Your task to perform on an android device: turn off location Image 0: 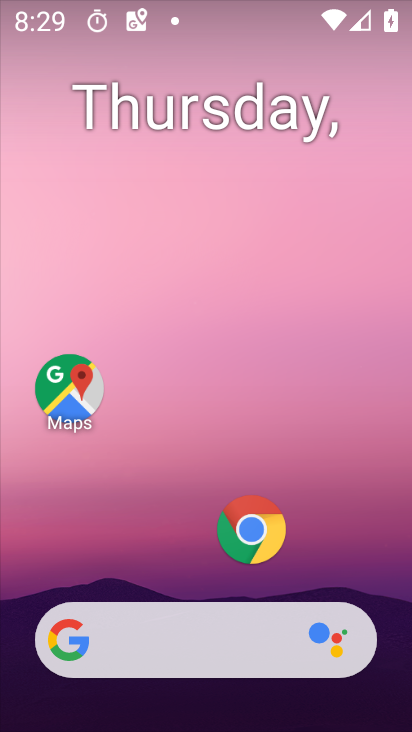
Step 0: press home button
Your task to perform on an android device: turn off location Image 1: 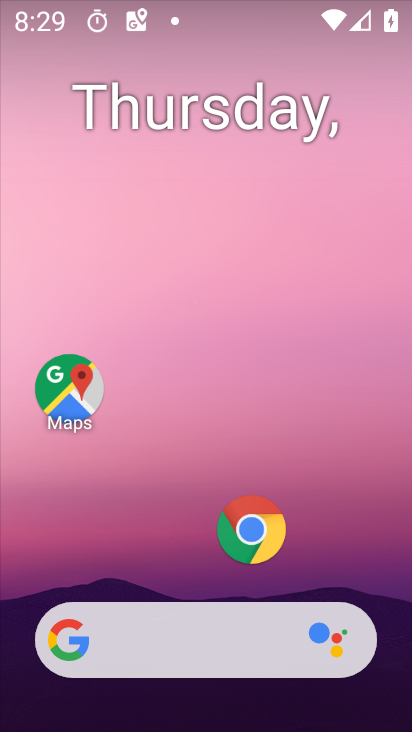
Step 1: drag from (207, 583) to (213, 34)
Your task to perform on an android device: turn off location Image 2: 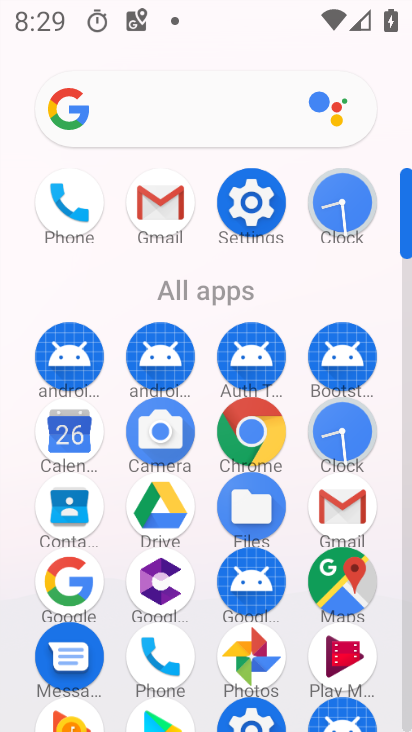
Step 2: click (249, 198)
Your task to perform on an android device: turn off location Image 3: 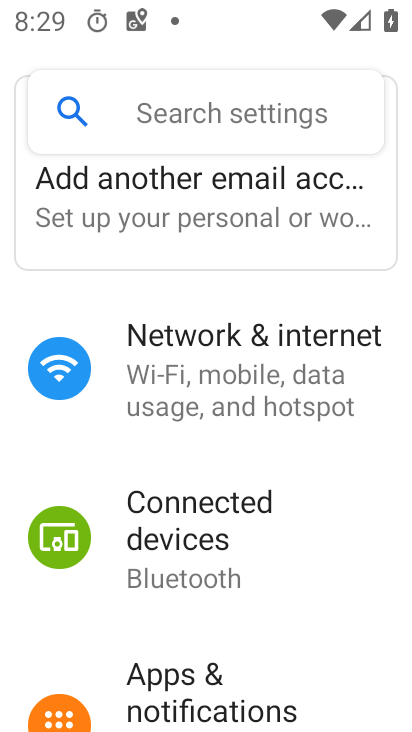
Step 3: drag from (225, 670) to (272, 121)
Your task to perform on an android device: turn off location Image 4: 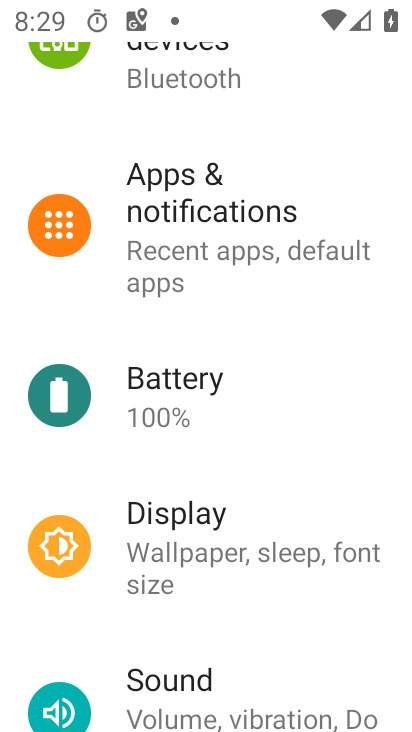
Step 4: drag from (245, 692) to (244, 100)
Your task to perform on an android device: turn off location Image 5: 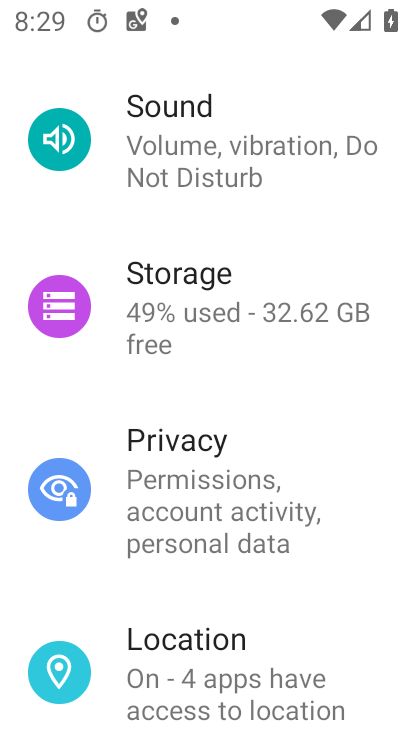
Step 5: click (226, 642)
Your task to perform on an android device: turn off location Image 6: 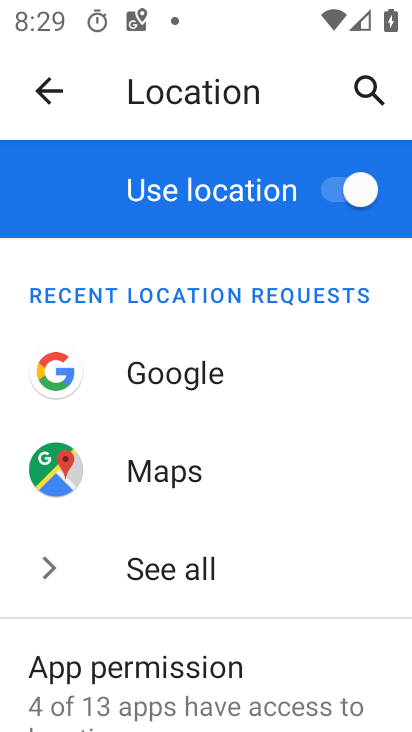
Step 6: click (342, 189)
Your task to perform on an android device: turn off location Image 7: 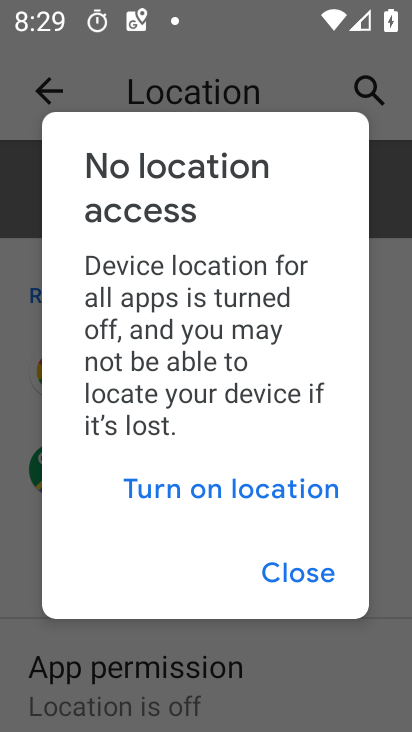
Step 7: click (298, 569)
Your task to perform on an android device: turn off location Image 8: 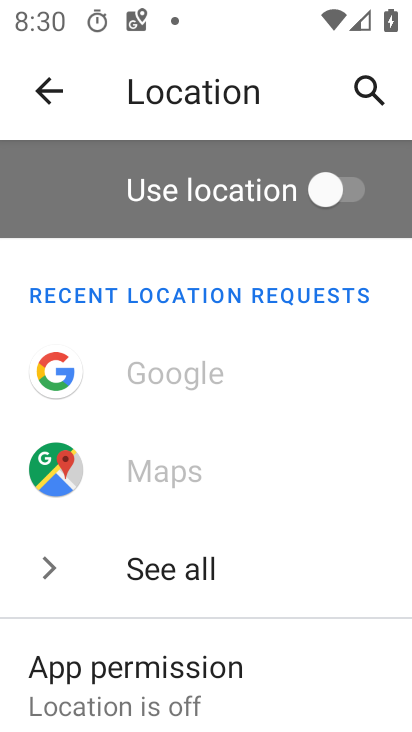
Step 8: task complete